Your task to perform on an android device: Open internet settings Image 0: 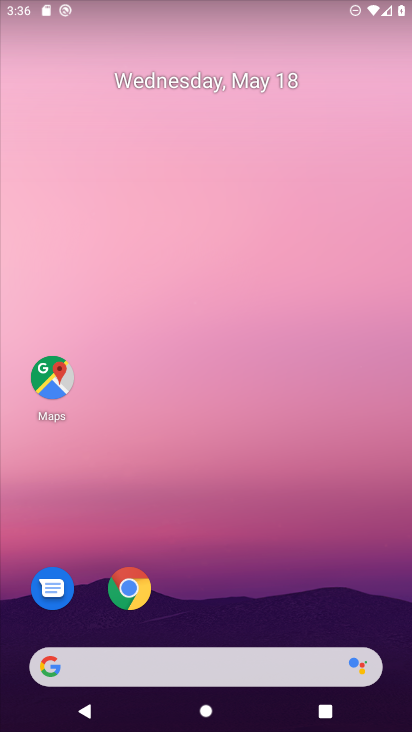
Step 0: drag from (250, 576) to (277, 195)
Your task to perform on an android device: Open internet settings Image 1: 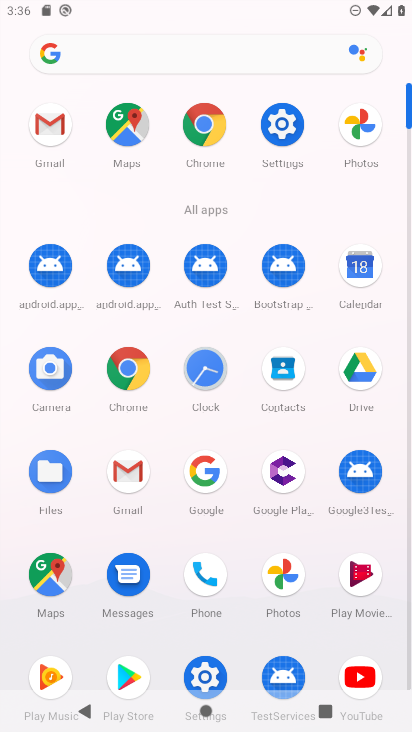
Step 1: click (272, 171)
Your task to perform on an android device: Open internet settings Image 2: 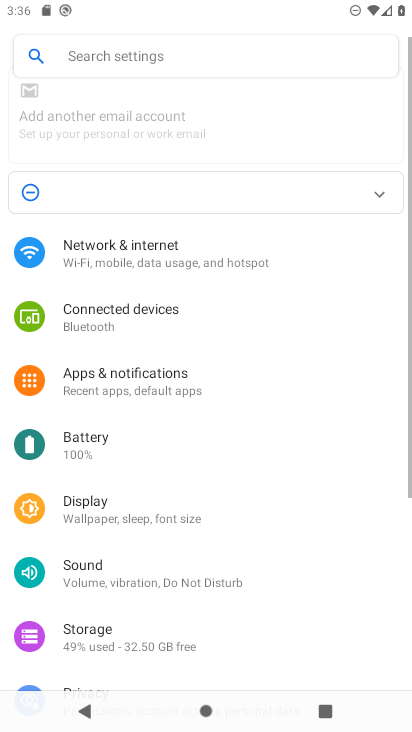
Step 2: task complete